Your task to perform on an android device: turn on javascript in the chrome app Image 0: 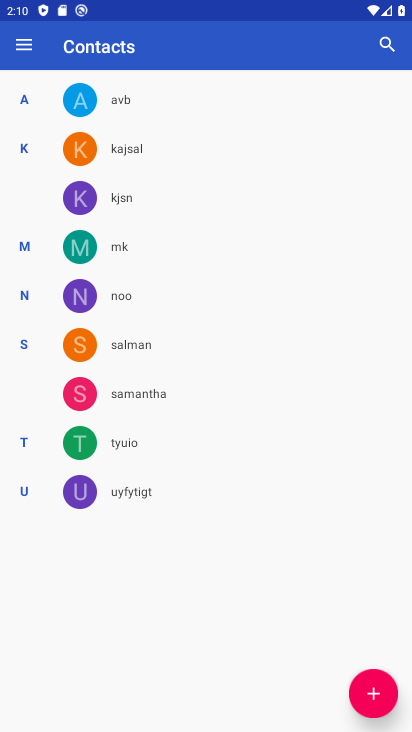
Step 0: press home button
Your task to perform on an android device: turn on javascript in the chrome app Image 1: 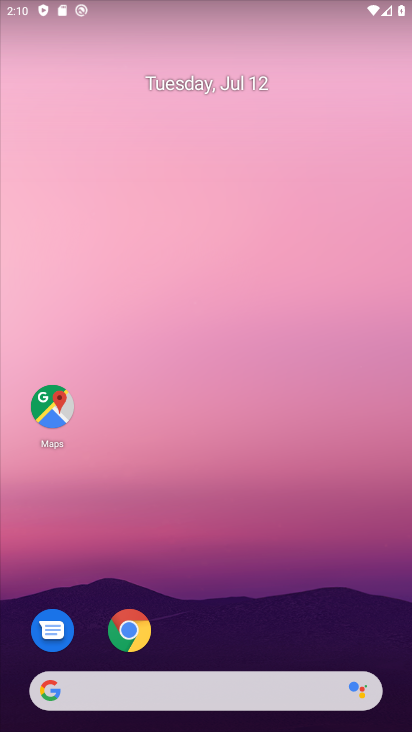
Step 1: click (131, 633)
Your task to perform on an android device: turn on javascript in the chrome app Image 2: 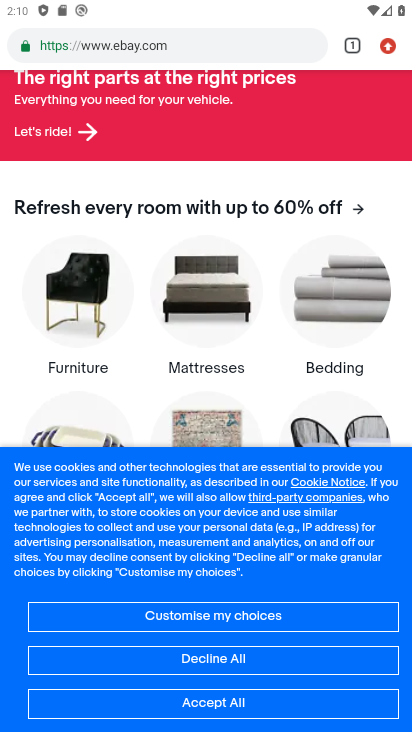
Step 2: click (388, 45)
Your task to perform on an android device: turn on javascript in the chrome app Image 3: 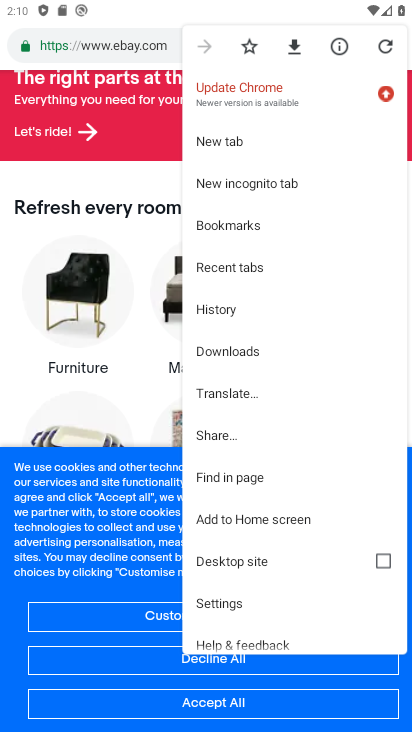
Step 3: click (229, 598)
Your task to perform on an android device: turn on javascript in the chrome app Image 4: 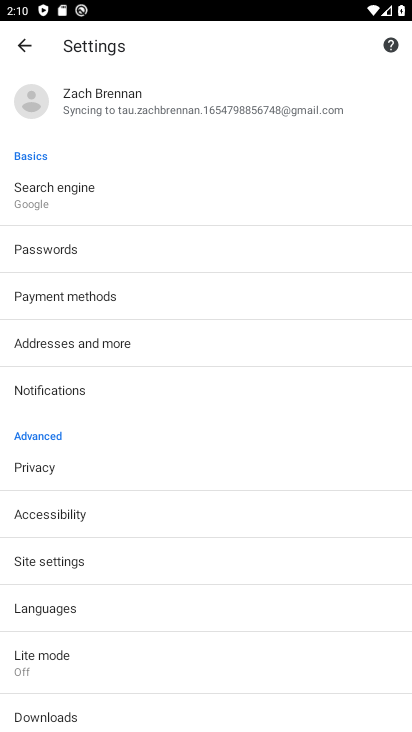
Step 4: click (62, 563)
Your task to perform on an android device: turn on javascript in the chrome app Image 5: 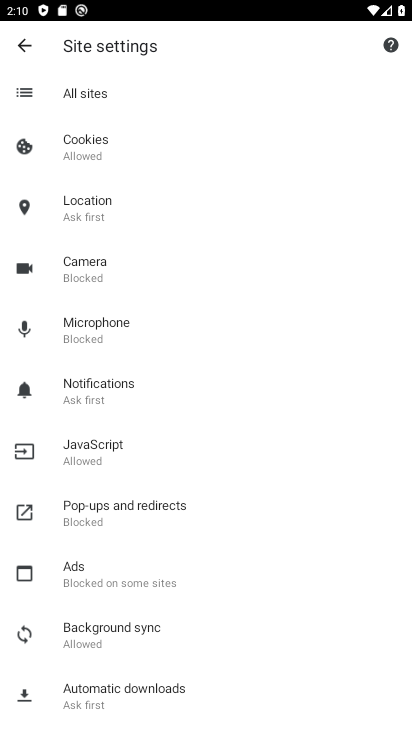
Step 5: click (82, 450)
Your task to perform on an android device: turn on javascript in the chrome app Image 6: 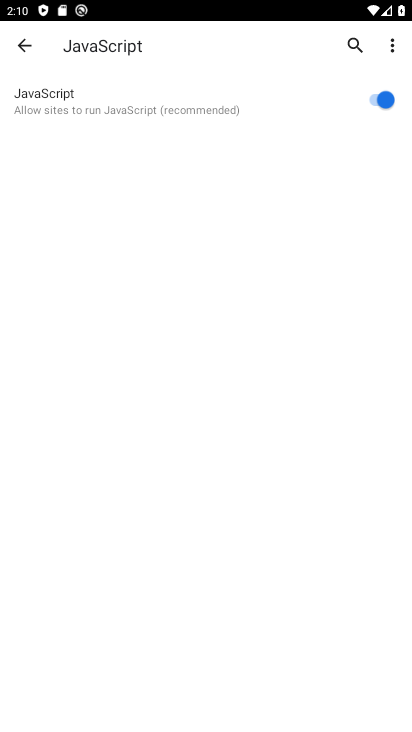
Step 6: task complete